Your task to perform on an android device: Open Chrome and go to the settings page Image 0: 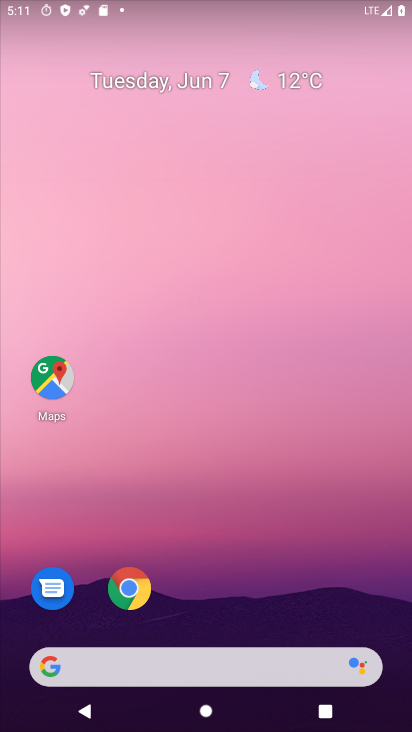
Step 0: drag from (192, 609) to (194, 15)
Your task to perform on an android device: Open Chrome and go to the settings page Image 1: 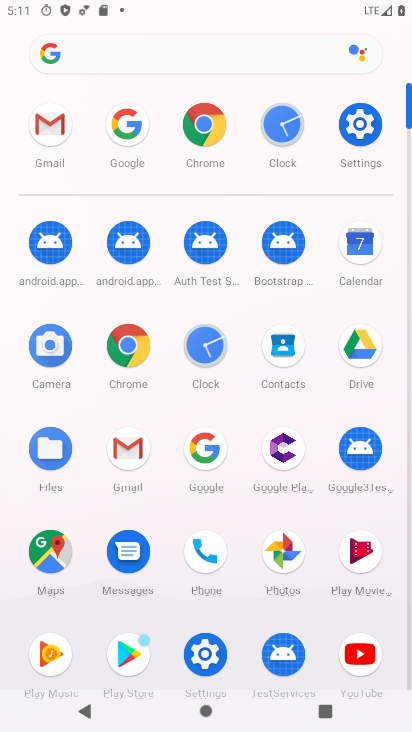
Step 1: click (211, 172)
Your task to perform on an android device: Open Chrome and go to the settings page Image 2: 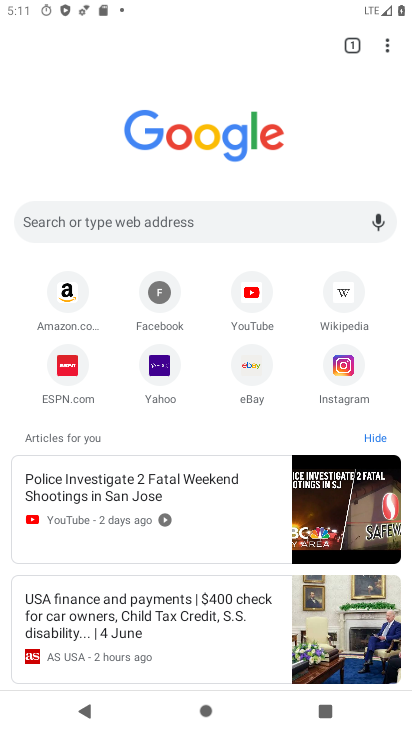
Step 2: click (389, 49)
Your task to perform on an android device: Open Chrome and go to the settings page Image 3: 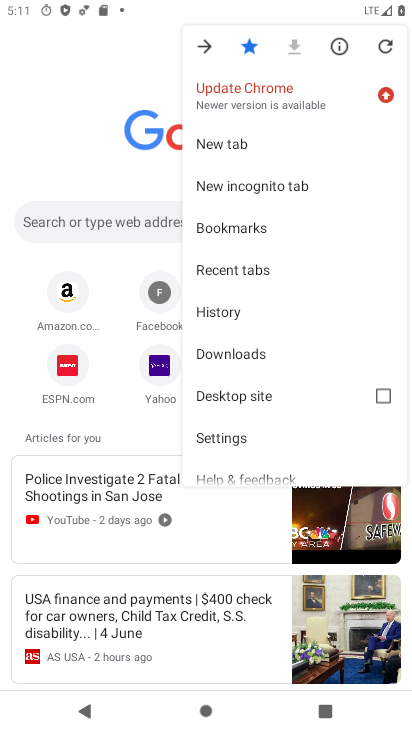
Step 3: click (231, 443)
Your task to perform on an android device: Open Chrome and go to the settings page Image 4: 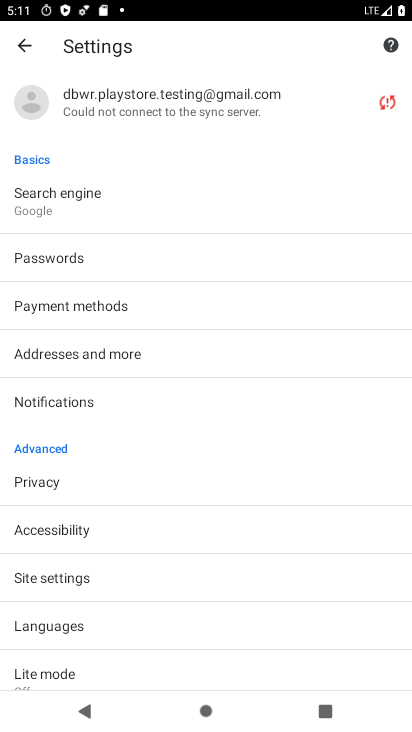
Step 4: task complete